Your task to perform on an android device: turn off improve location accuracy Image 0: 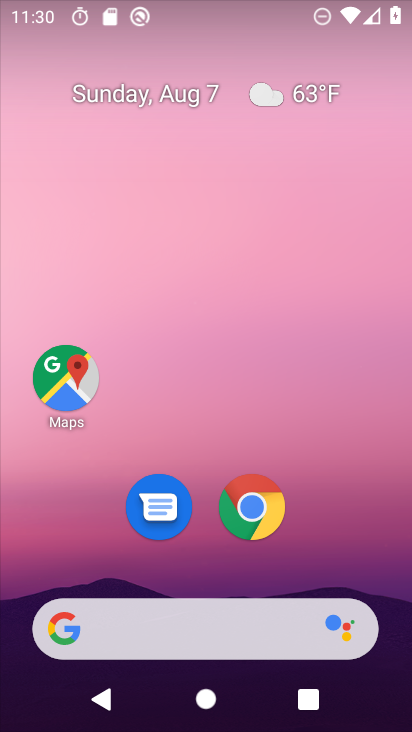
Step 0: drag from (342, 536) to (222, 56)
Your task to perform on an android device: turn off improve location accuracy Image 1: 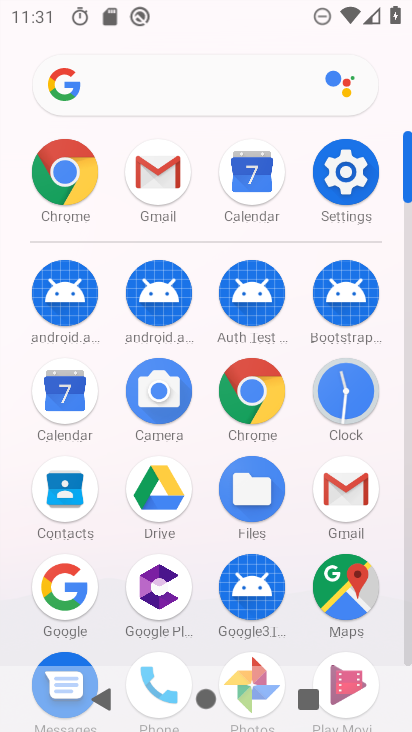
Step 1: click (348, 169)
Your task to perform on an android device: turn off improve location accuracy Image 2: 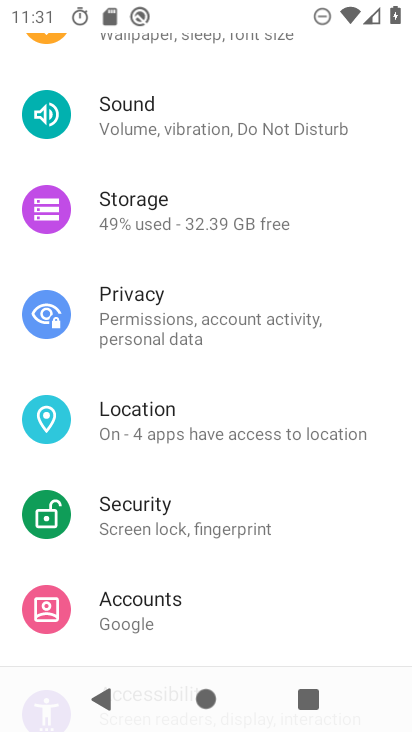
Step 2: click (180, 427)
Your task to perform on an android device: turn off improve location accuracy Image 3: 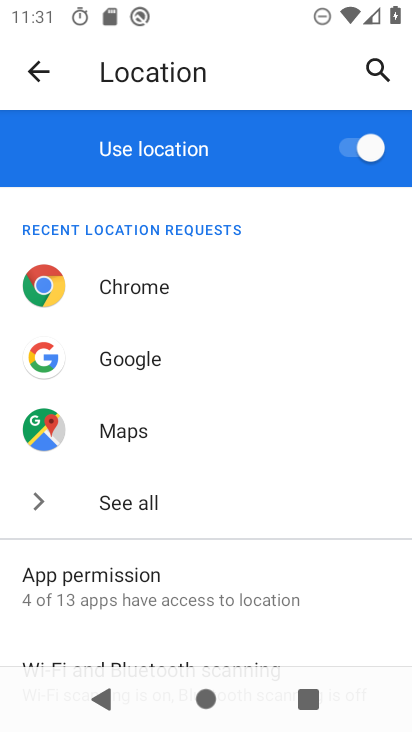
Step 3: drag from (240, 554) to (200, 44)
Your task to perform on an android device: turn off improve location accuracy Image 4: 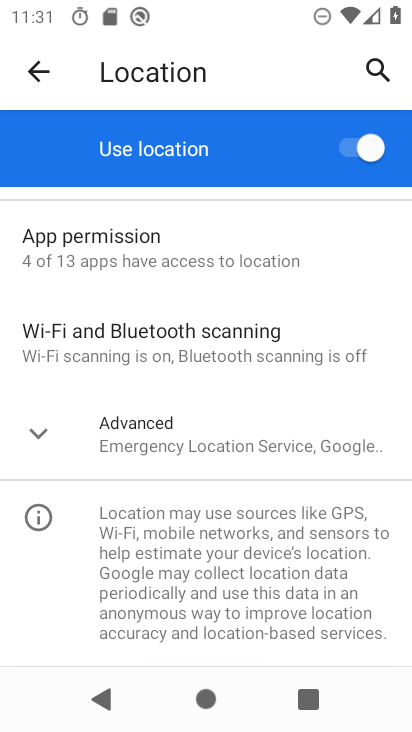
Step 4: click (171, 447)
Your task to perform on an android device: turn off improve location accuracy Image 5: 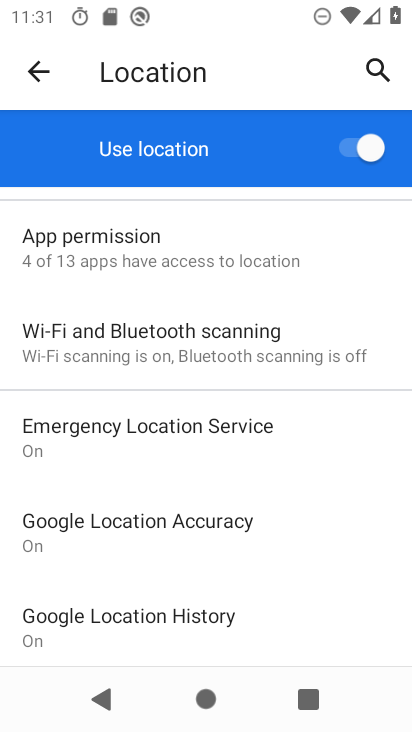
Step 5: click (202, 537)
Your task to perform on an android device: turn off improve location accuracy Image 6: 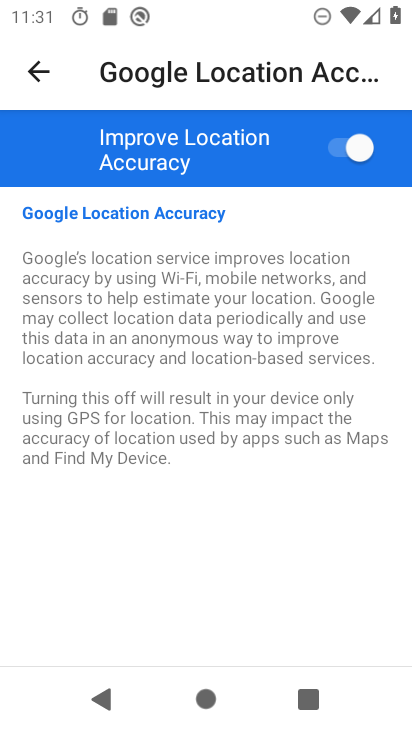
Step 6: click (350, 152)
Your task to perform on an android device: turn off improve location accuracy Image 7: 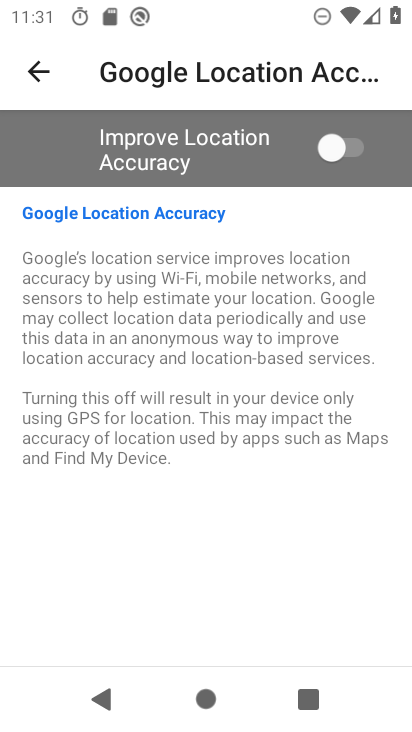
Step 7: task complete